Your task to perform on an android device: set the timer Image 0: 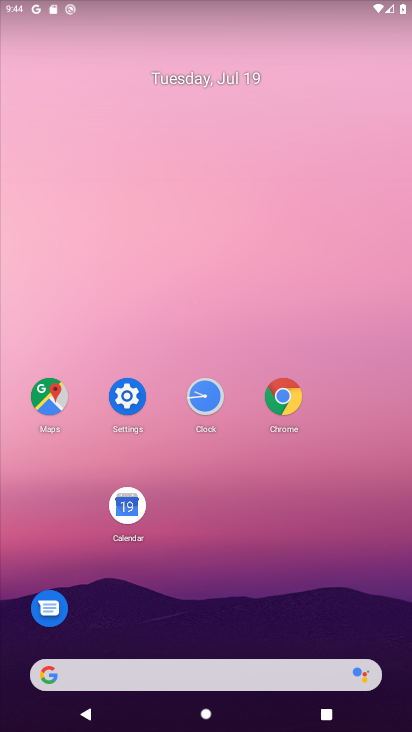
Step 0: click (116, 401)
Your task to perform on an android device: set the timer Image 1: 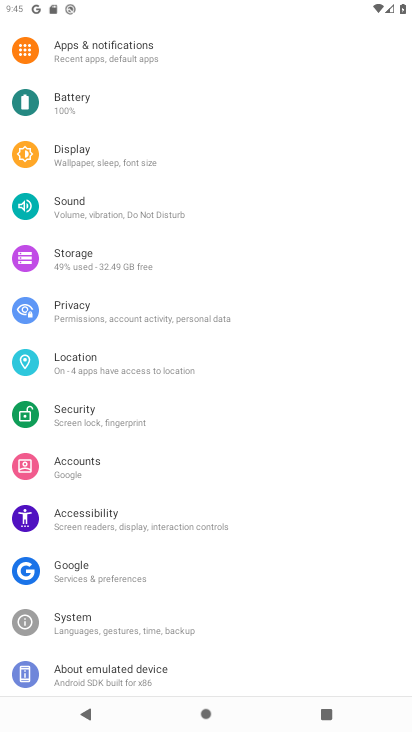
Step 1: press home button
Your task to perform on an android device: set the timer Image 2: 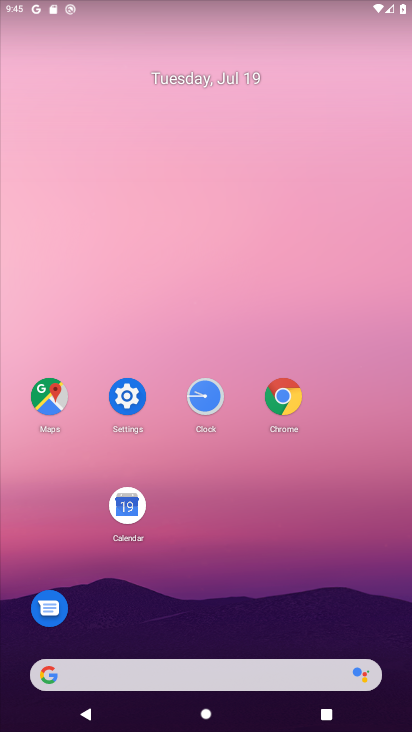
Step 2: click (199, 404)
Your task to perform on an android device: set the timer Image 3: 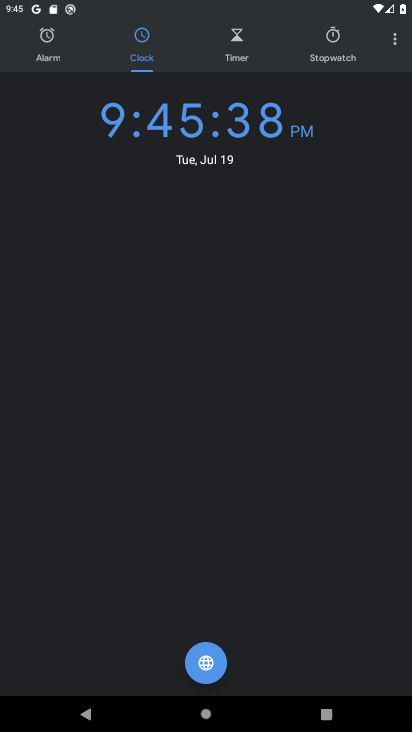
Step 3: click (394, 42)
Your task to perform on an android device: set the timer Image 4: 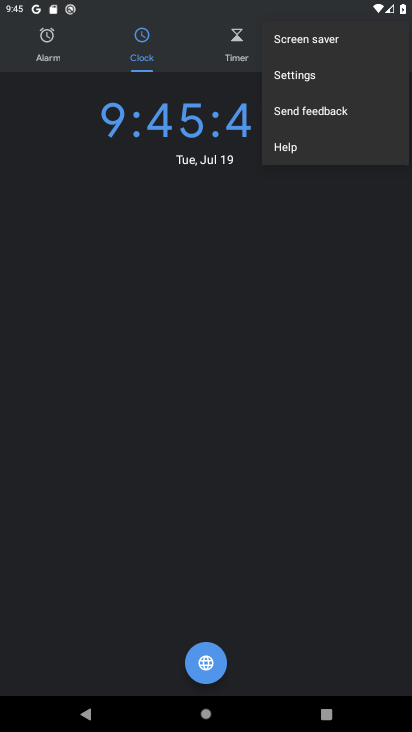
Step 4: click (223, 38)
Your task to perform on an android device: set the timer Image 5: 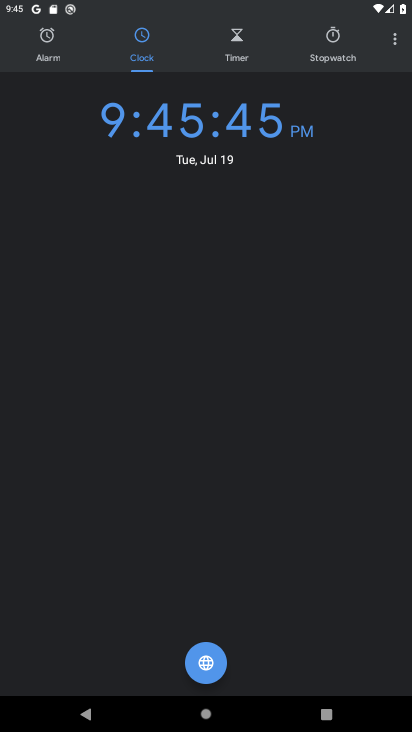
Step 5: click (245, 54)
Your task to perform on an android device: set the timer Image 6: 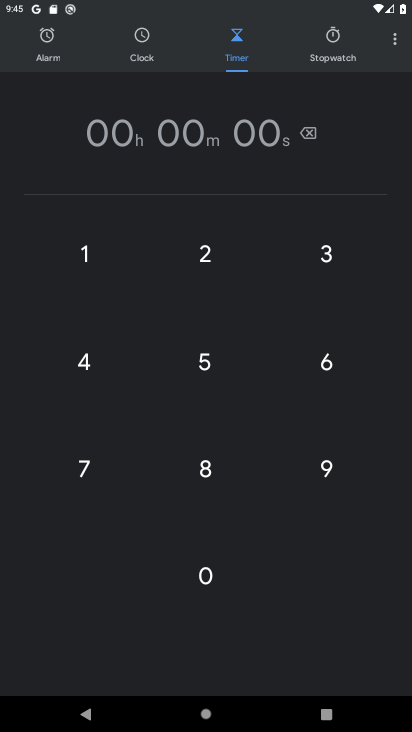
Step 6: click (209, 338)
Your task to perform on an android device: set the timer Image 7: 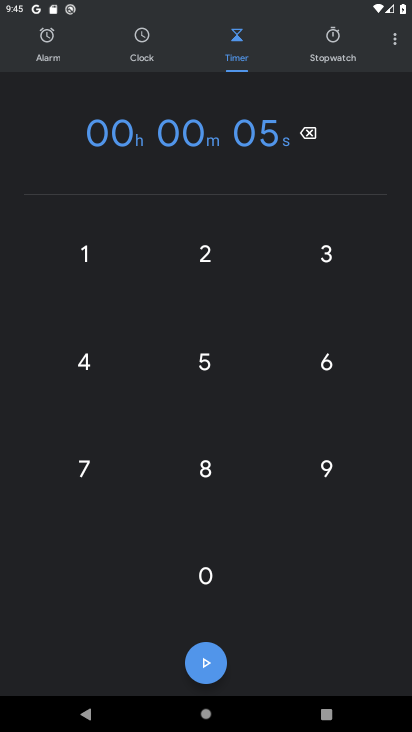
Step 7: click (207, 350)
Your task to perform on an android device: set the timer Image 8: 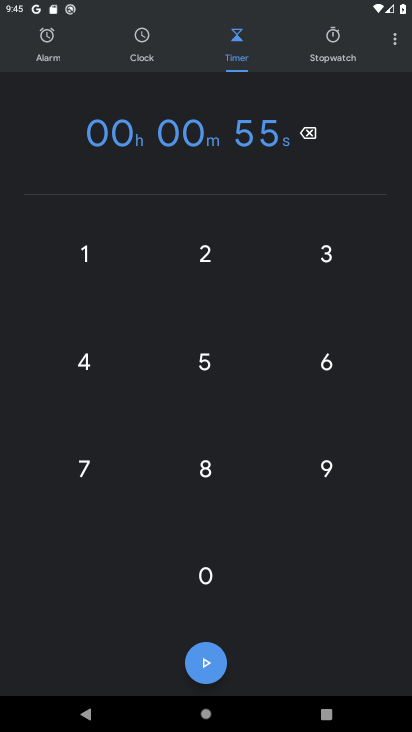
Step 8: click (201, 652)
Your task to perform on an android device: set the timer Image 9: 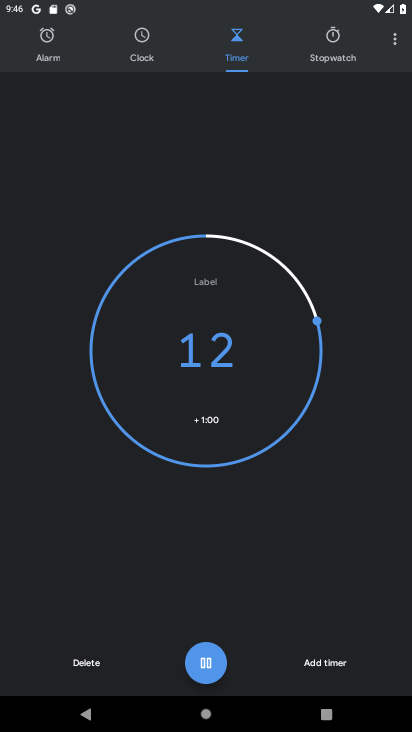
Step 9: task complete